Your task to perform on an android device: turn off improve location accuracy Image 0: 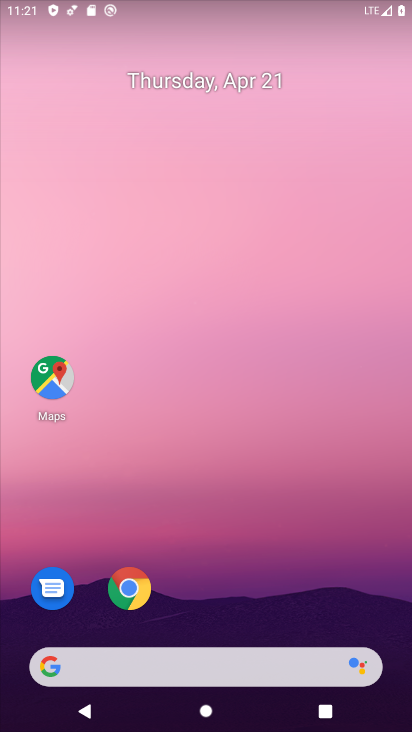
Step 0: drag from (273, 691) to (255, 111)
Your task to perform on an android device: turn off improve location accuracy Image 1: 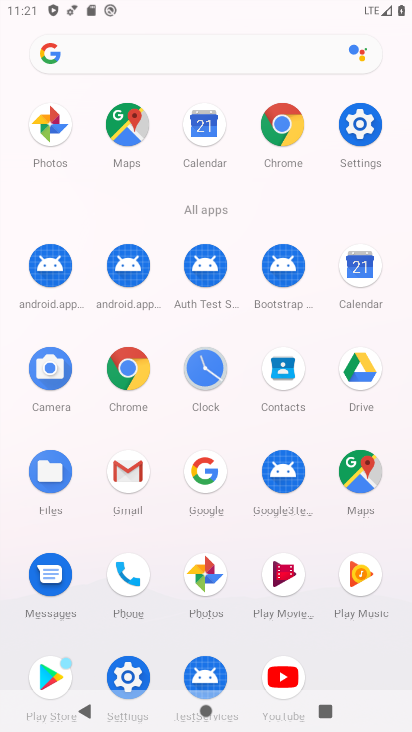
Step 1: click (369, 117)
Your task to perform on an android device: turn off improve location accuracy Image 2: 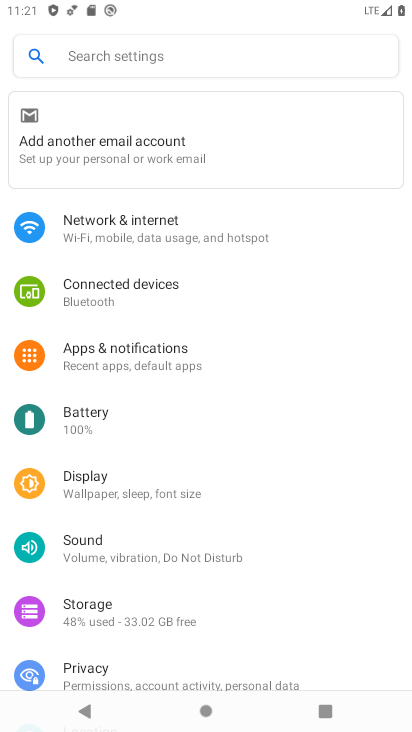
Step 2: drag from (108, 524) to (119, 455)
Your task to perform on an android device: turn off improve location accuracy Image 3: 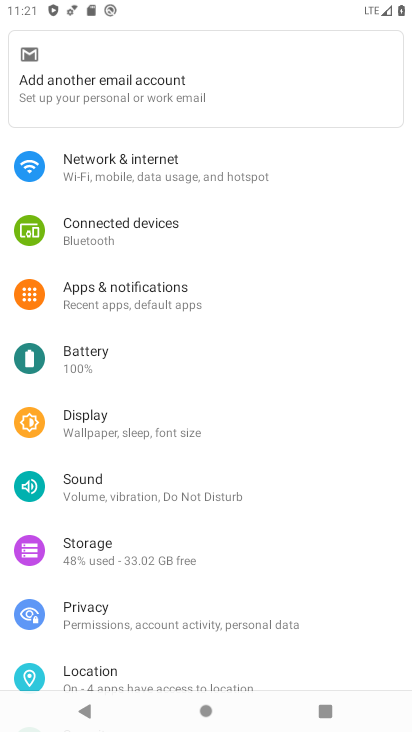
Step 3: click (115, 662)
Your task to perform on an android device: turn off improve location accuracy Image 4: 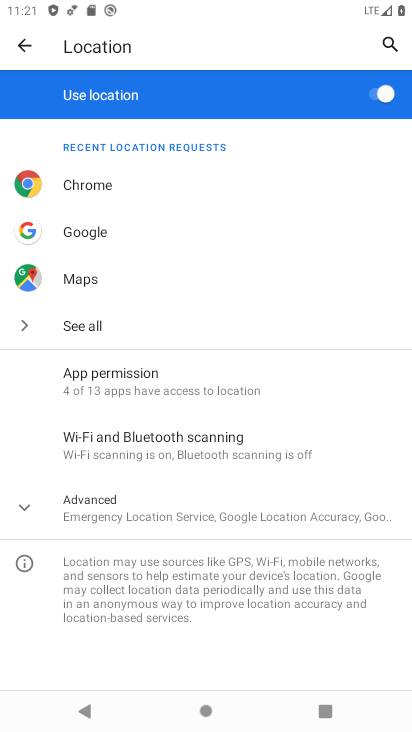
Step 4: click (30, 495)
Your task to perform on an android device: turn off improve location accuracy Image 5: 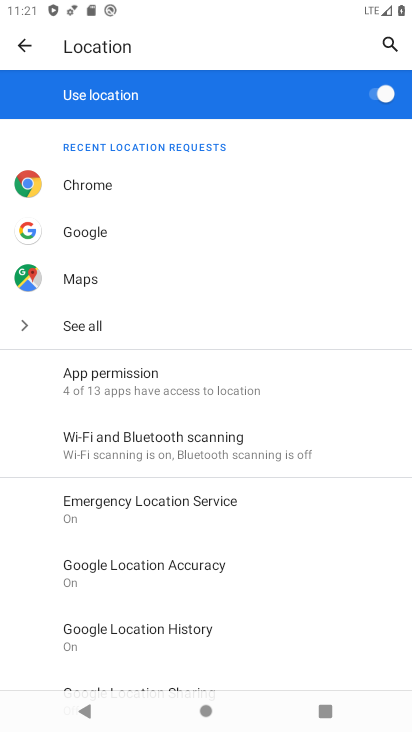
Step 5: click (115, 575)
Your task to perform on an android device: turn off improve location accuracy Image 6: 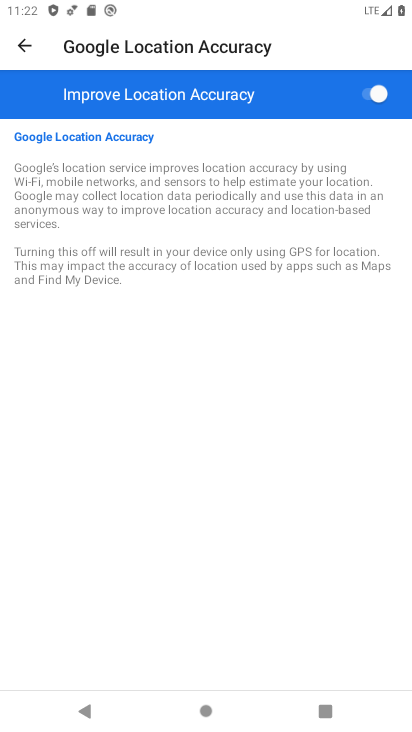
Step 6: click (369, 104)
Your task to perform on an android device: turn off improve location accuracy Image 7: 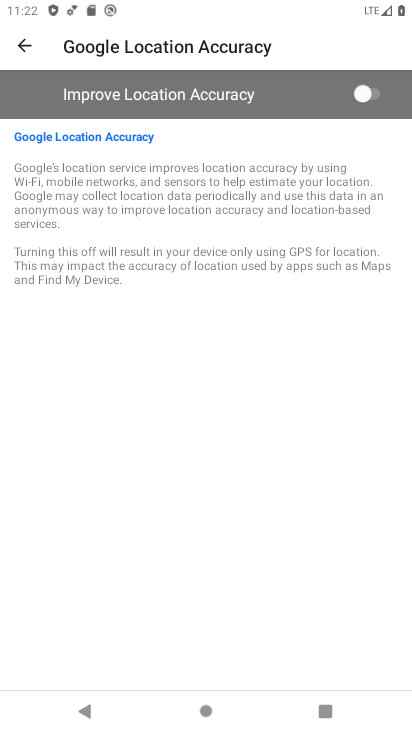
Step 7: task complete